Your task to perform on an android device: Open Yahoo.com Image 0: 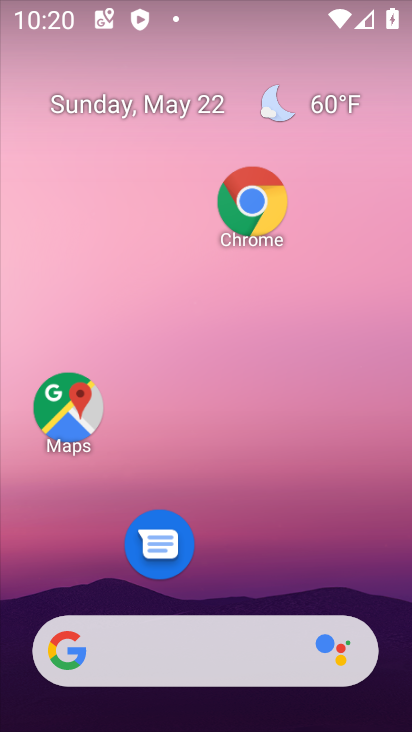
Step 0: click (250, 202)
Your task to perform on an android device: Open Yahoo.com Image 1: 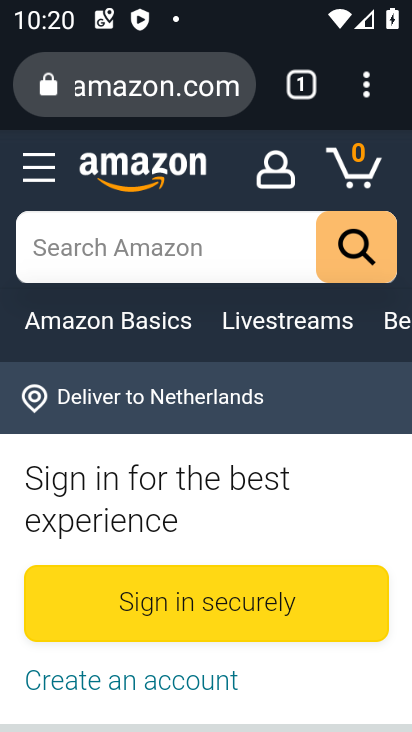
Step 1: press back button
Your task to perform on an android device: Open Yahoo.com Image 2: 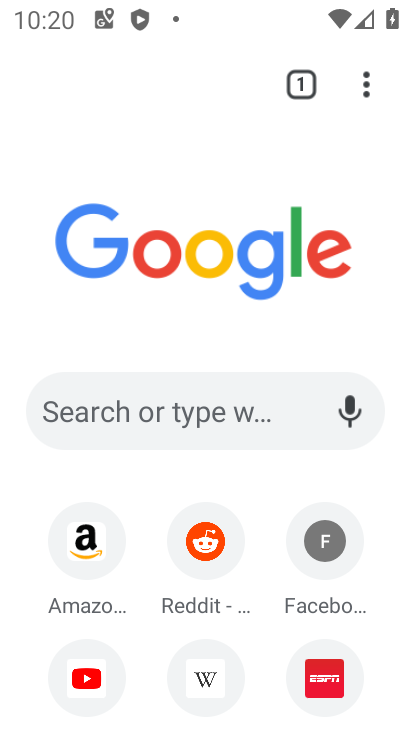
Step 2: drag from (289, 567) to (276, 172)
Your task to perform on an android device: Open Yahoo.com Image 3: 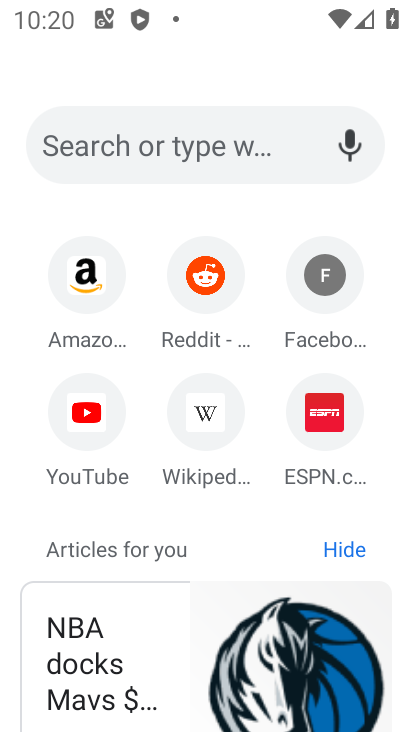
Step 3: click (247, 523)
Your task to perform on an android device: Open Yahoo.com Image 4: 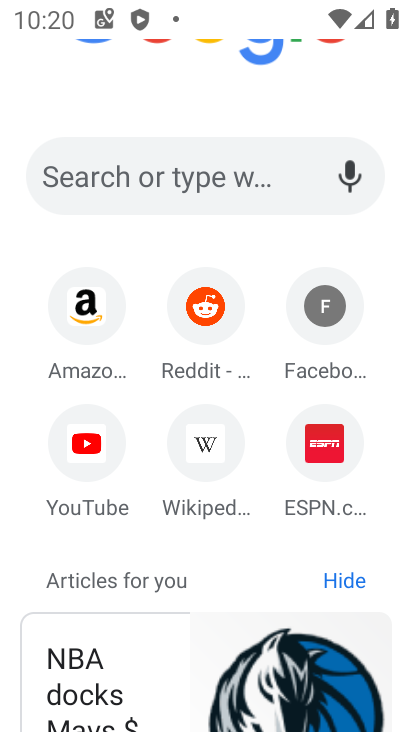
Step 4: click (139, 176)
Your task to perform on an android device: Open Yahoo.com Image 5: 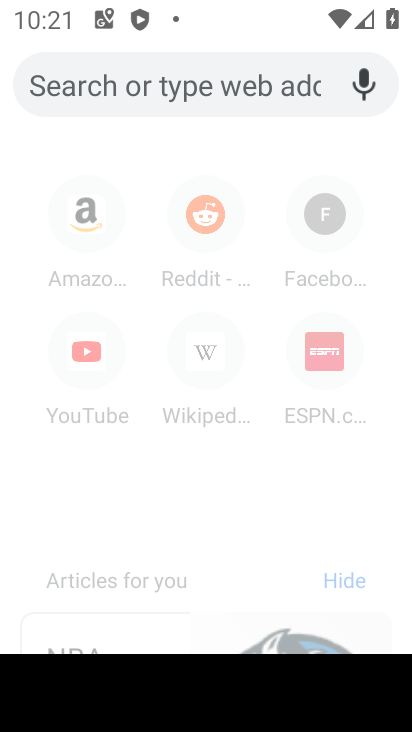
Step 5: click (157, 102)
Your task to perform on an android device: Open Yahoo.com Image 6: 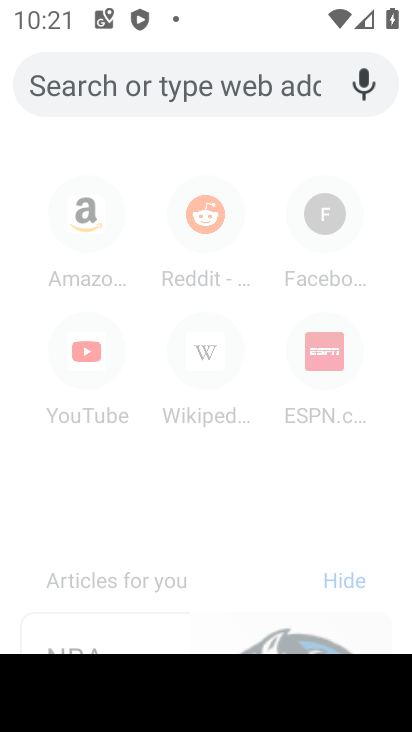
Step 6: type "yahoo.com"
Your task to perform on an android device: Open Yahoo.com Image 7: 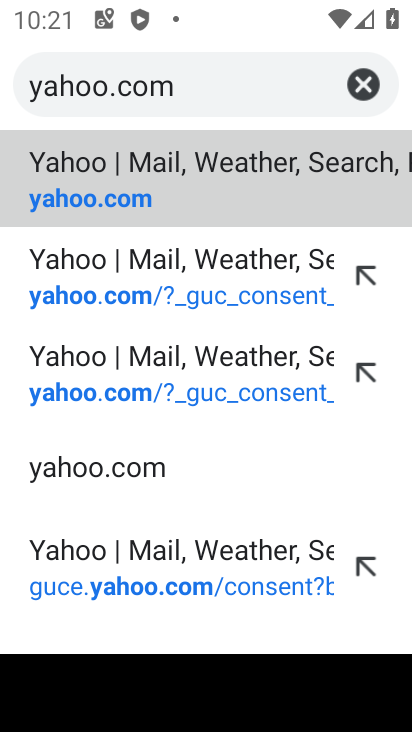
Step 7: click (180, 187)
Your task to perform on an android device: Open Yahoo.com Image 8: 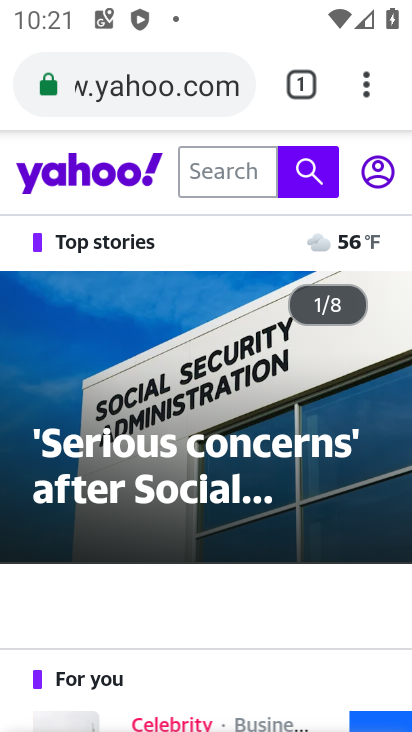
Step 8: task complete